Your task to perform on an android device: delete a single message in the gmail app Image 0: 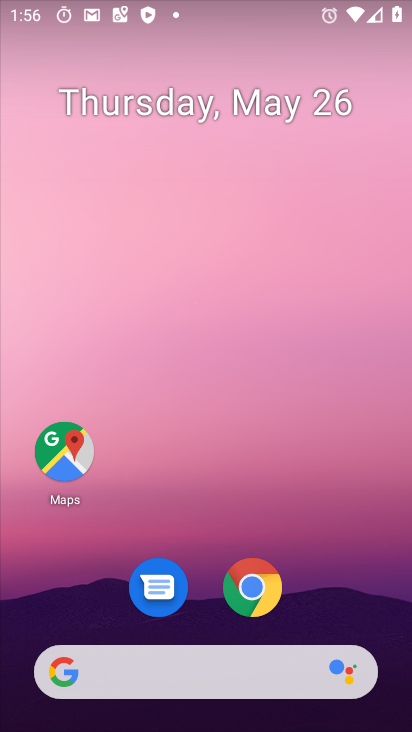
Step 0: drag from (205, 696) to (247, 162)
Your task to perform on an android device: delete a single message in the gmail app Image 1: 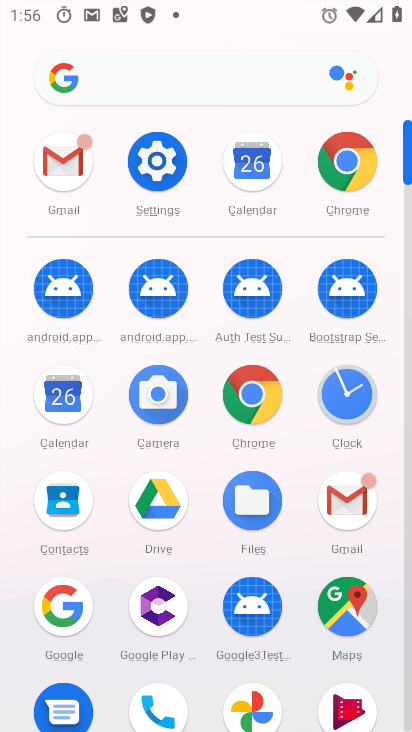
Step 1: click (76, 170)
Your task to perform on an android device: delete a single message in the gmail app Image 2: 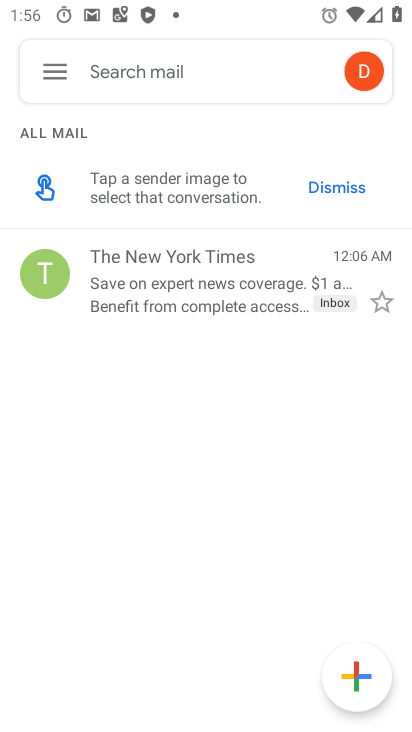
Step 2: click (227, 285)
Your task to perform on an android device: delete a single message in the gmail app Image 3: 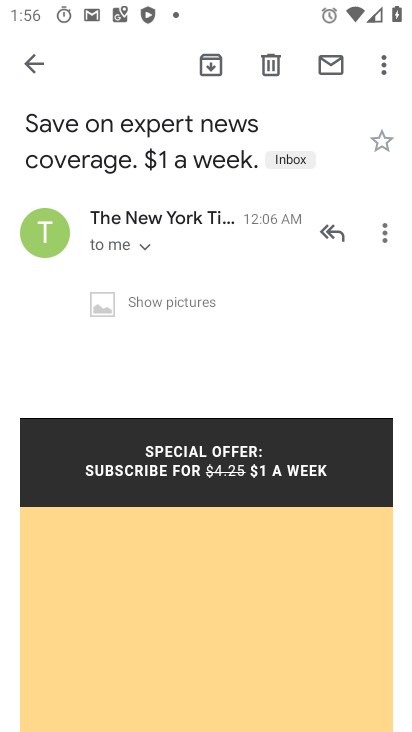
Step 3: click (257, 71)
Your task to perform on an android device: delete a single message in the gmail app Image 4: 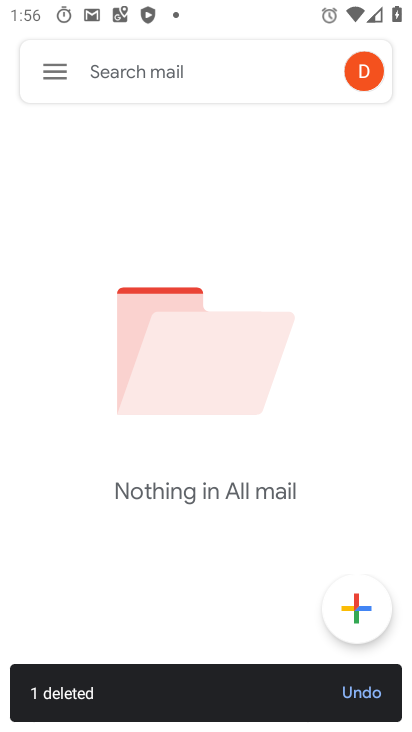
Step 4: task complete